Your task to perform on an android device: Is it going to rain this weekend? Image 0: 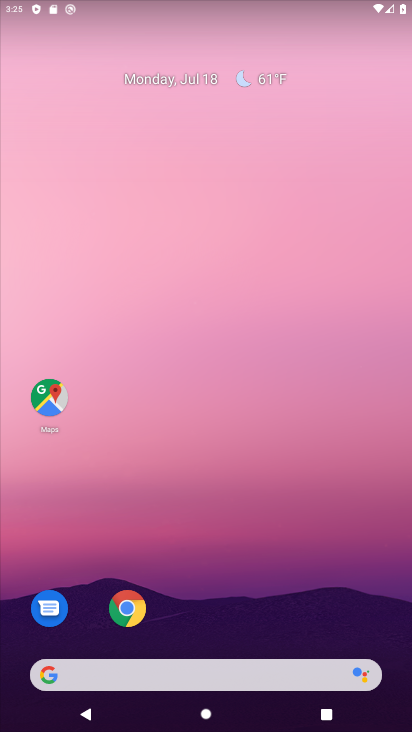
Step 0: drag from (255, 585) to (344, 54)
Your task to perform on an android device: Is it going to rain this weekend? Image 1: 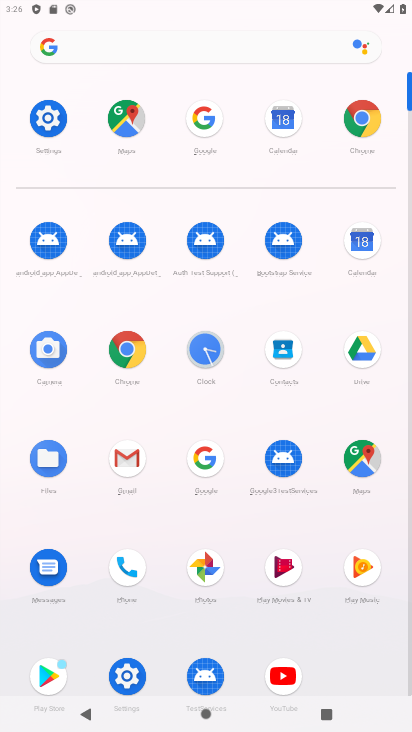
Step 1: click (364, 123)
Your task to perform on an android device: Is it going to rain this weekend? Image 2: 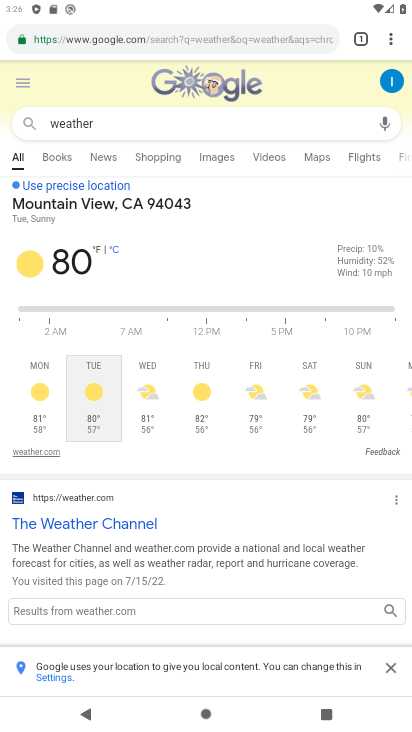
Step 2: click (307, 399)
Your task to perform on an android device: Is it going to rain this weekend? Image 3: 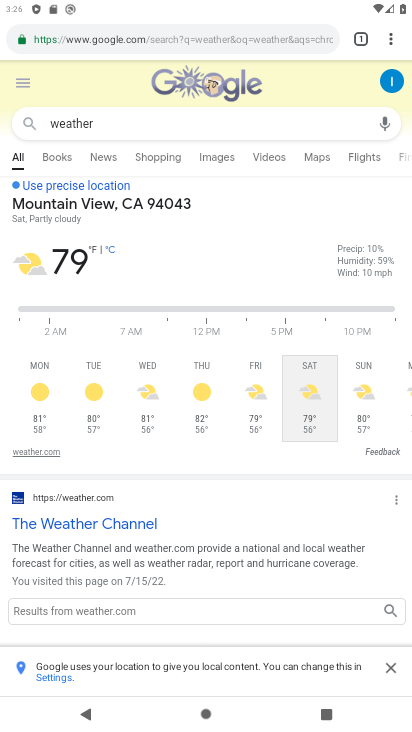
Step 3: task complete